Your task to perform on an android device: turn off smart reply in the gmail app Image 0: 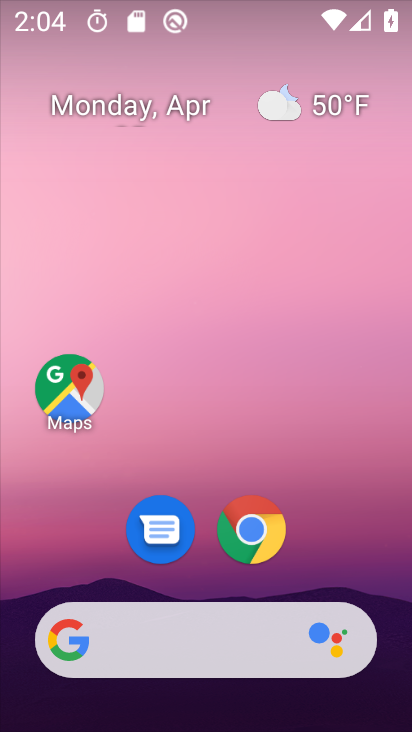
Step 0: drag from (385, 437) to (369, 85)
Your task to perform on an android device: turn off smart reply in the gmail app Image 1: 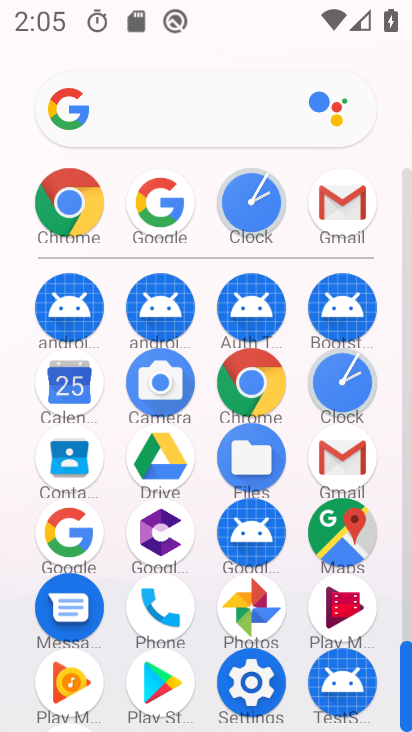
Step 1: click (326, 457)
Your task to perform on an android device: turn off smart reply in the gmail app Image 2: 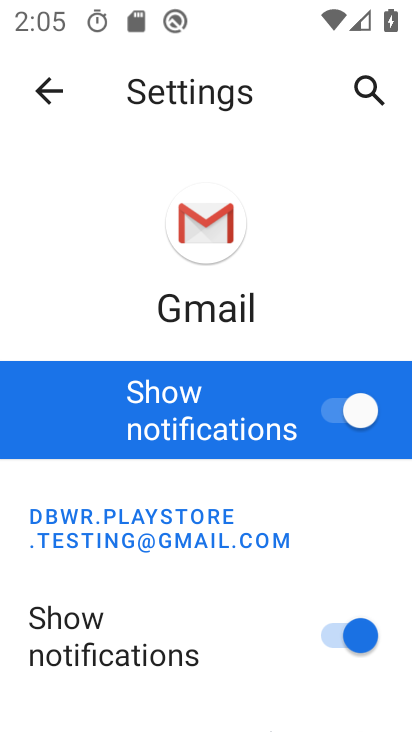
Step 2: drag from (241, 678) to (209, 225)
Your task to perform on an android device: turn off smart reply in the gmail app Image 3: 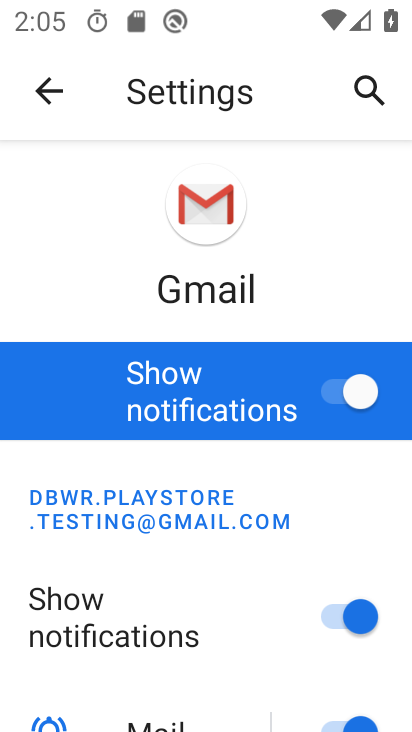
Step 3: drag from (249, 699) to (248, 271)
Your task to perform on an android device: turn off smart reply in the gmail app Image 4: 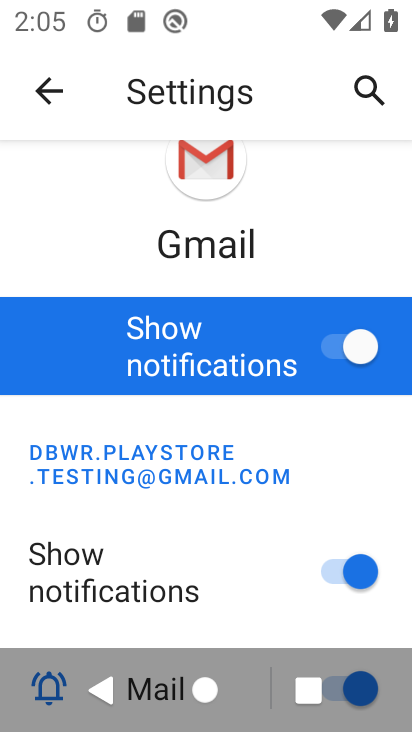
Step 4: drag from (242, 472) to (254, 74)
Your task to perform on an android device: turn off smart reply in the gmail app Image 5: 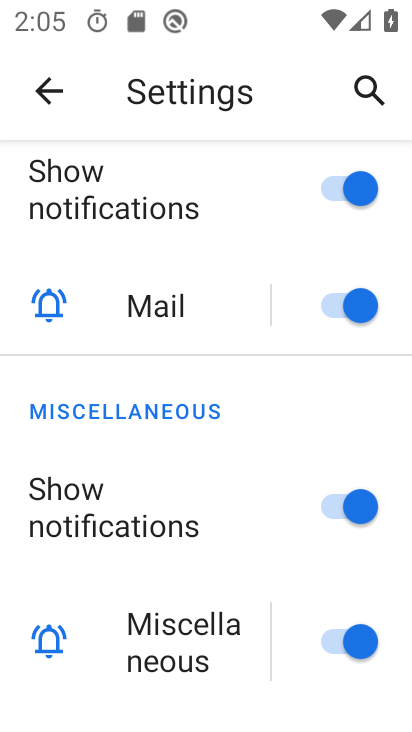
Step 5: drag from (244, 570) to (230, 247)
Your task to perform on an android device: turn off smart reply in the gmail app Image 6: 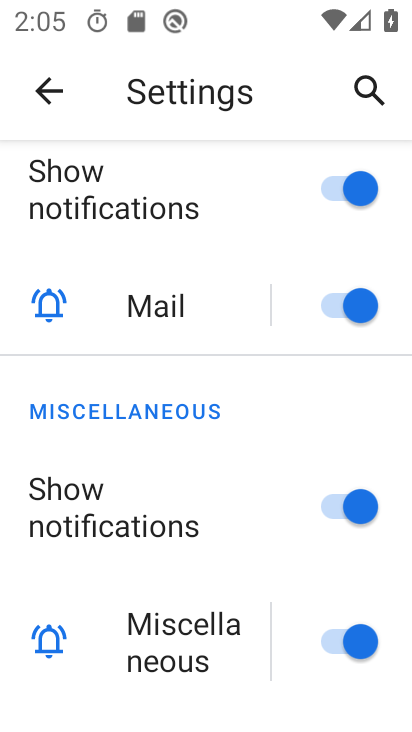
Step 6: drag from (234, 225) to (240, 579)
Your task to perform on an android device: turn off smart reply in the gmail app Image 7: 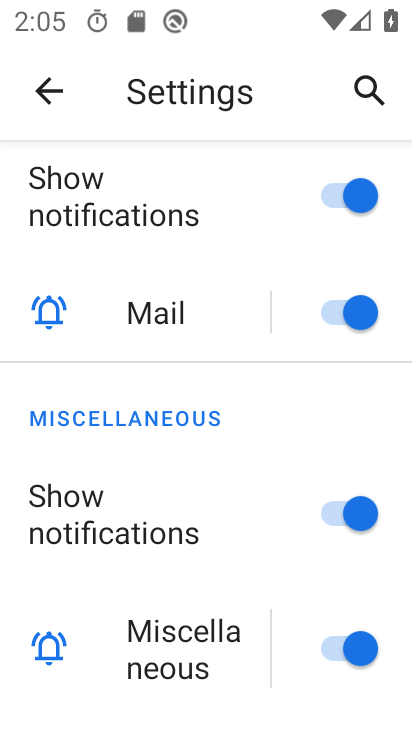
Step 7: drag from (247, 533) to (248, 618)
Your task to perform on an android device: turn off smart reply in the gmail app Image 8: 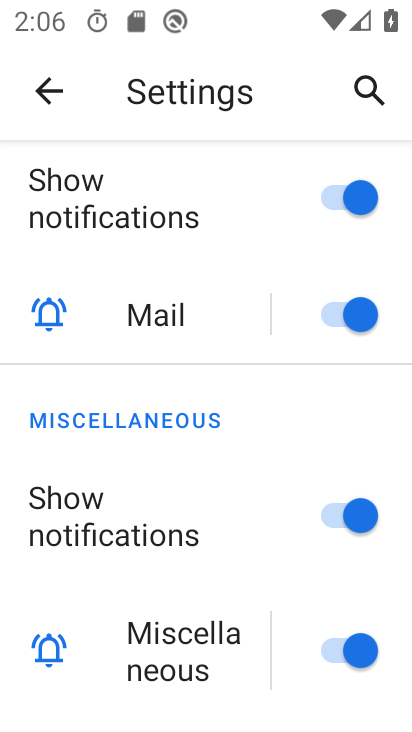
Step 8: click (49, 93)
Your task to perform on an android device: turn off smart reply in the gmail app Image 9: 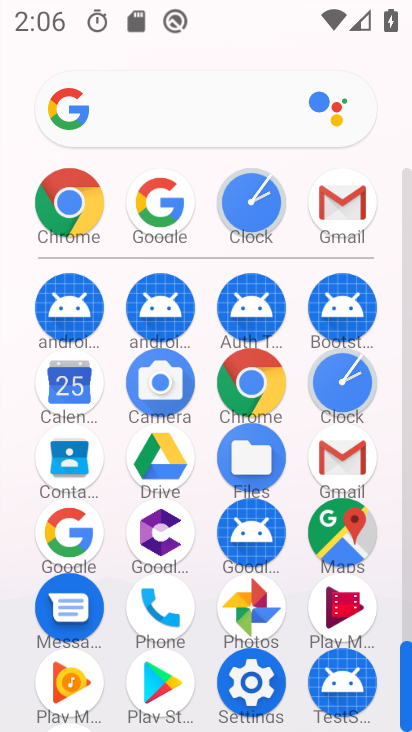
Step 9: click (241, 684)
Your task to perform on an android device: turn off smart reply in the gmail app Image 10: 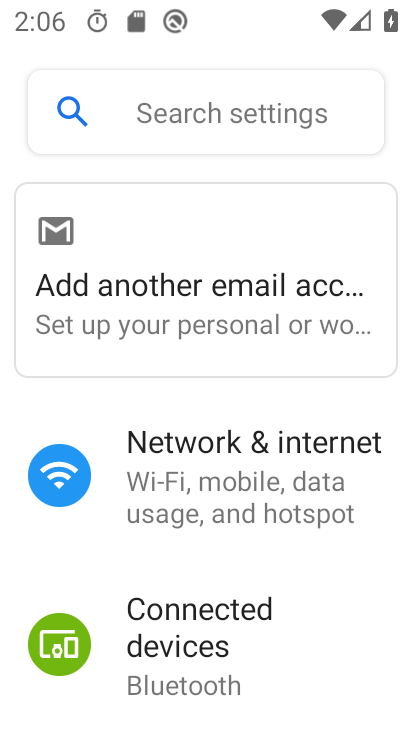
Step 10: press back button
Your task to perform on an android device: turn off smart reply in the gmail app Image 11: 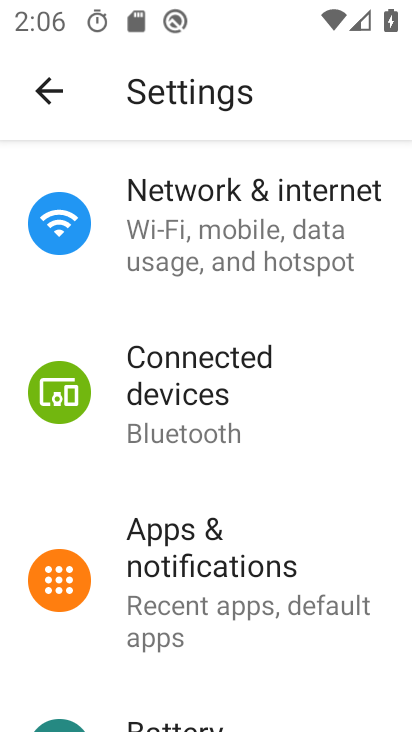
Step 11: press back button
Your task to perform on an android device: turn off smart reply in the gmail app Image 12: 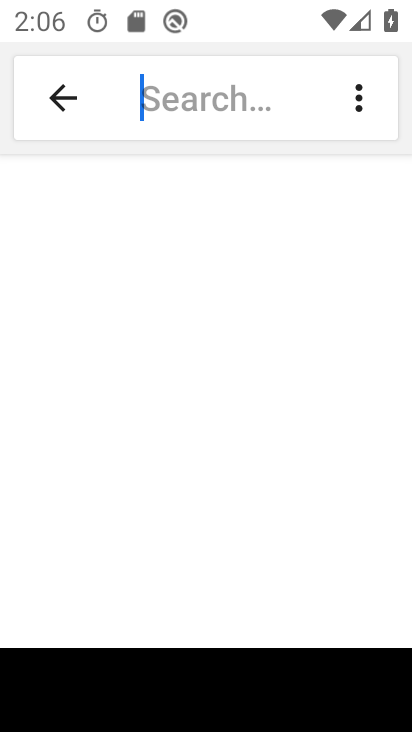
Step 12: click (358, 92)
Your task to perform on an android device: turn off smart reply in the gmail app Image 13: 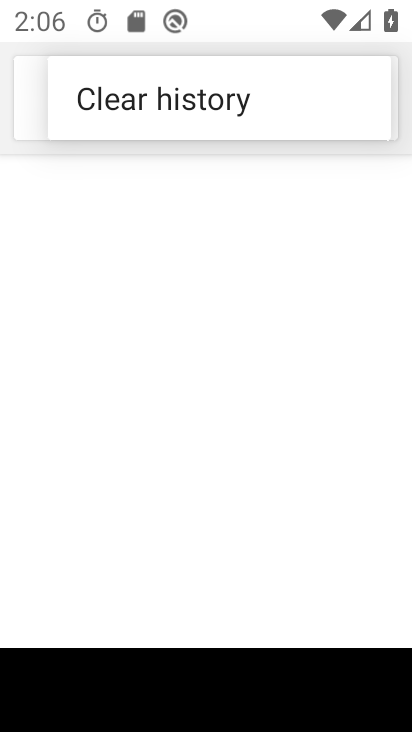
Step 13: press back button
Your task to perform on an android device: turn off smart reply in the gmail app Image 14: 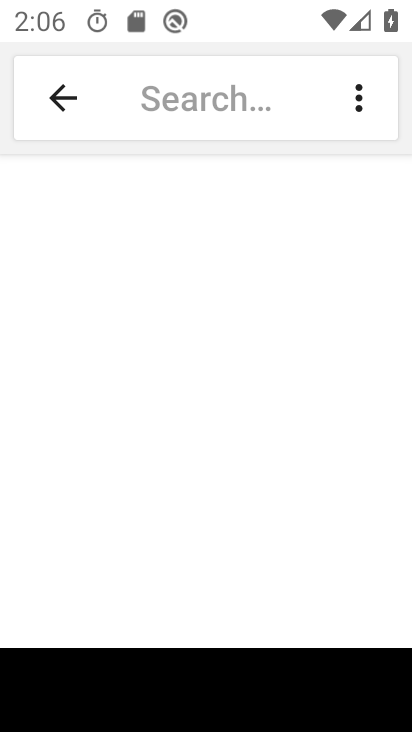
Step 14: press back button
Your task to perform on an android device: turn off smart reply in the gmail app Image 15: 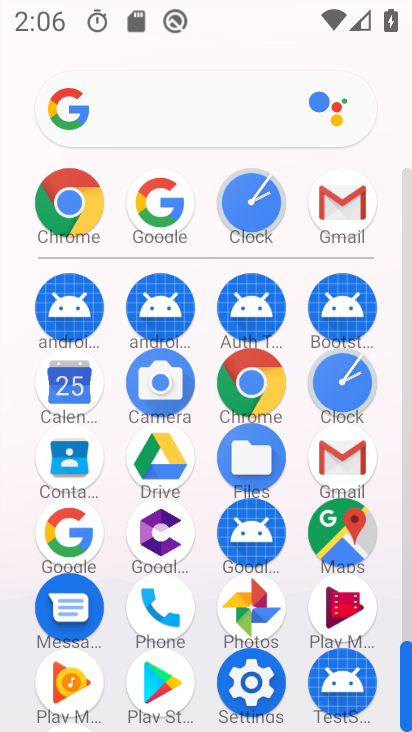
Step 15: click (323, 462)
Your task to perform on an android device: turn off smart reply in the gmail app Image 16: 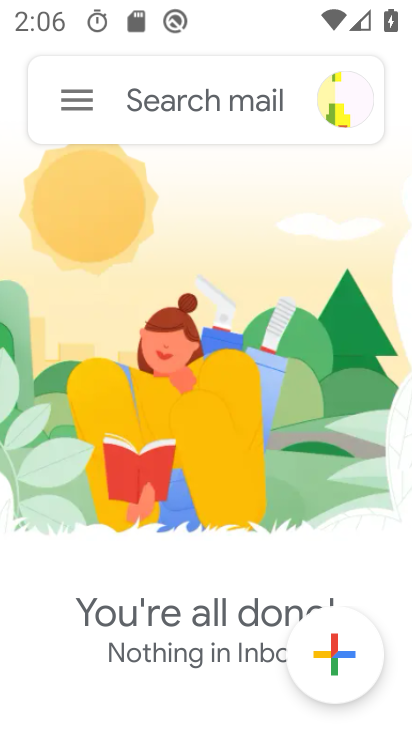
Step 16: click (78, 98)
Your task to perform on an android device: turn off smart reply in the gmail app Image 17: 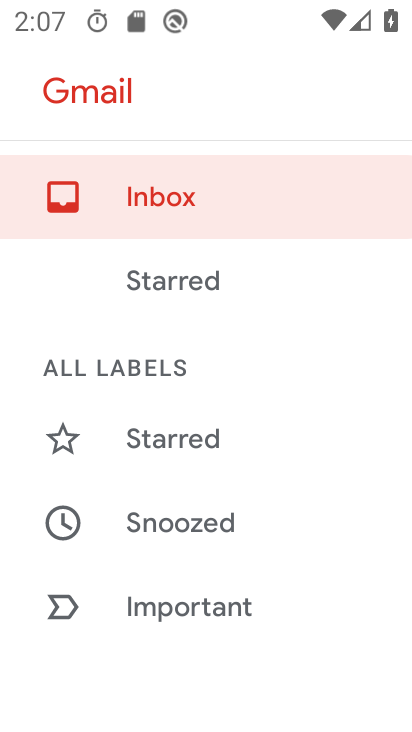
Step 17: drag from (310, 635) to (308, 368)
Your task to perform on an android device: turn off smart reply in the gmail app Image 18: 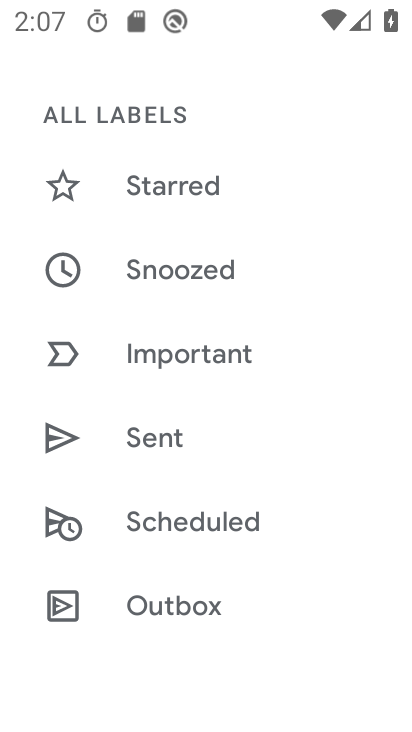
Step 18: click (329, 264)
Your task to perform on an android device: turn off smart reply in the gmail app Image 19: 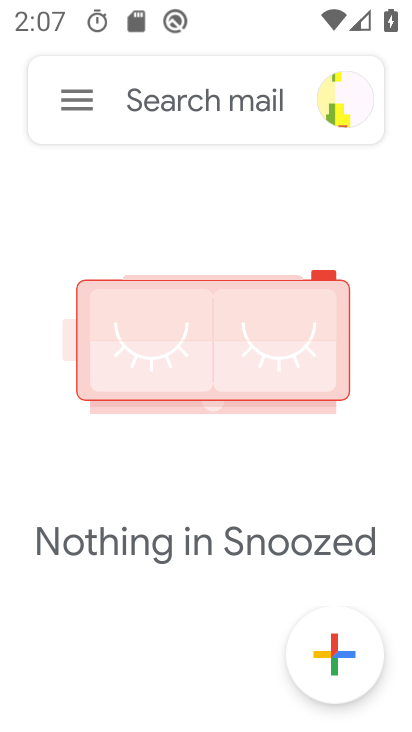
Step 19: press back button
Your task to perform on an android device: turn off smart reply in the gmail app Image 20: 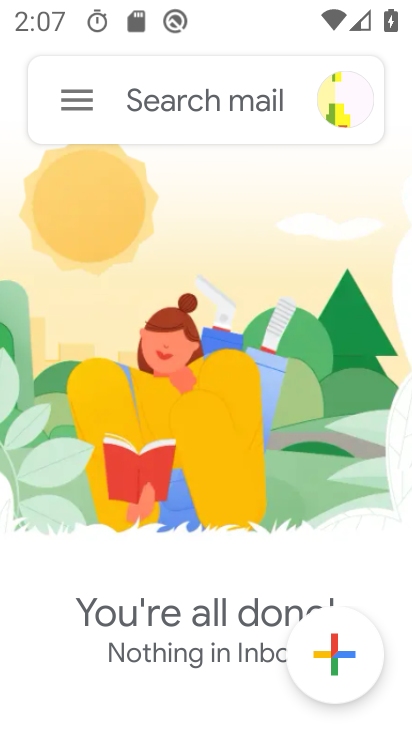
Step 20: click (64, 95)
Your task to perform on an android device: turn off smart reply in the gmail app Image 21: 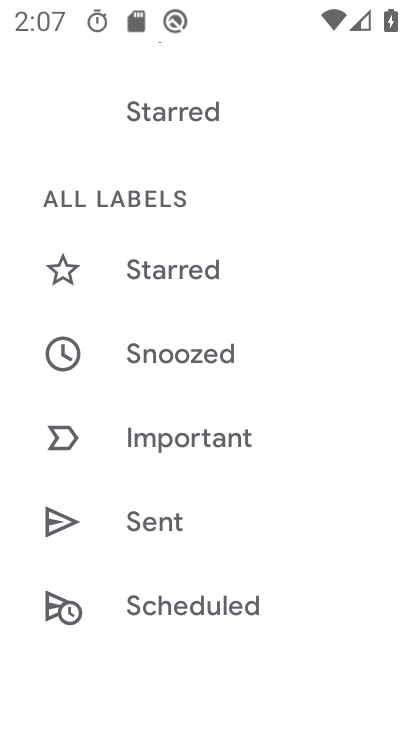
Step 21: drag from (320, 581) to (331, 177)
Your task to perform on an android device: turn off smart reply in the gmail app Image 22: 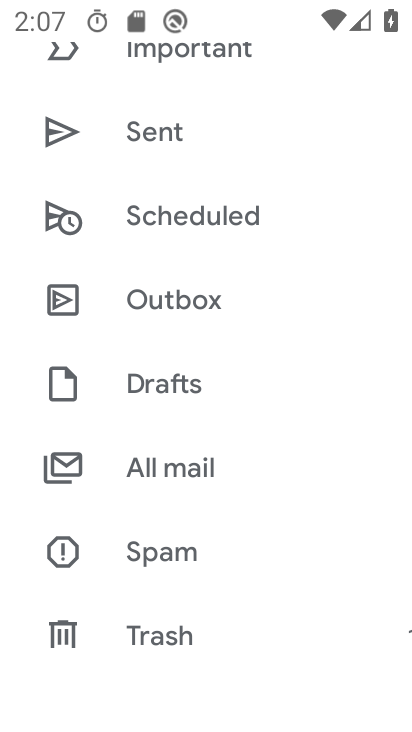
Step 22: drag from (286, 663) to (270, 280)
Your task to perform on an android device: turn off smart reply in the gmail app Image 23: 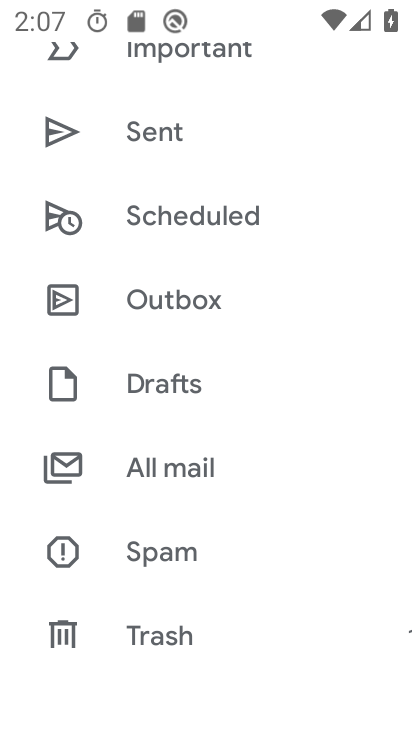
Step 23: drag from (298, 656) to (277, 358)
Your task to perform on an android device: turn off smart reply in the gmail app Image 24: 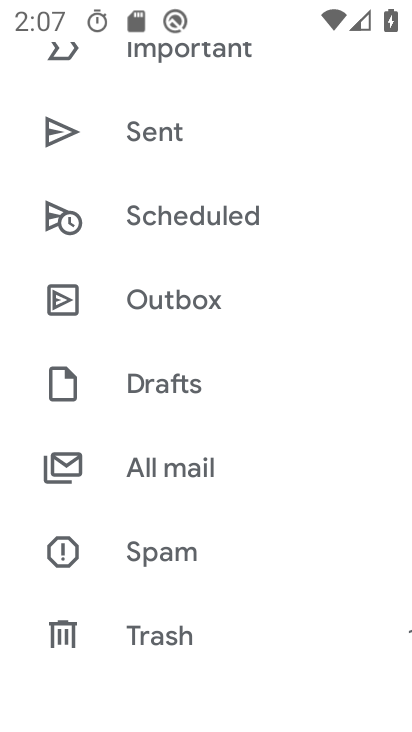
Step 24: drag from (277, 655) to (300, 390)
Your task to perform on an android device: turn off smart reply in the gmail app Image 25: 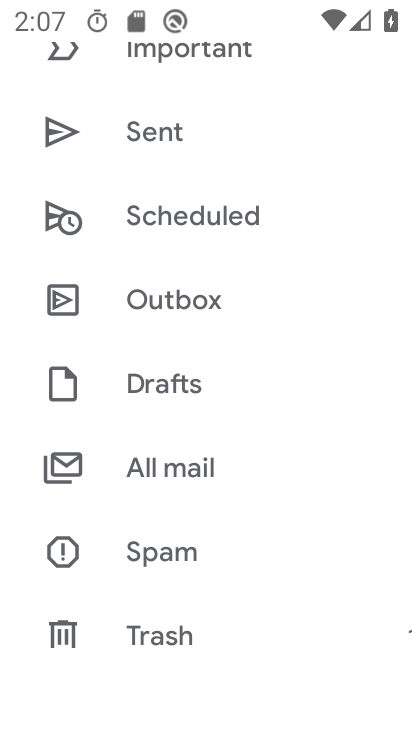
Step 25: drag from (326, 630) to (331, 296)
Your task to perform on an android device: turn off smart reply in the gmail app Image 26: 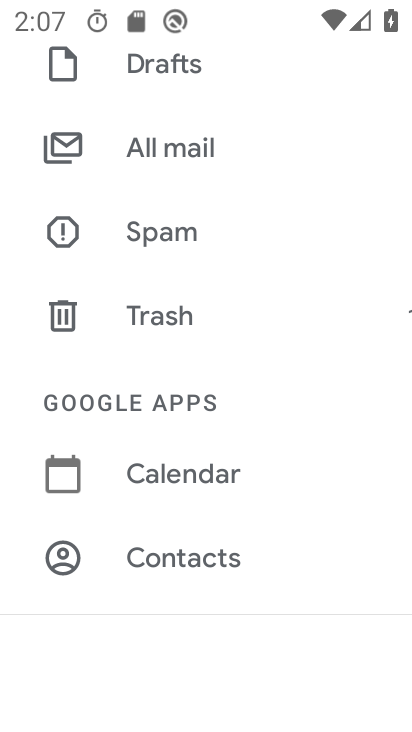
Step 26: drag from (306, 424) to (317, 227)
Your task to perform on an android device: turn off smart reply in the gmail app Image 27: 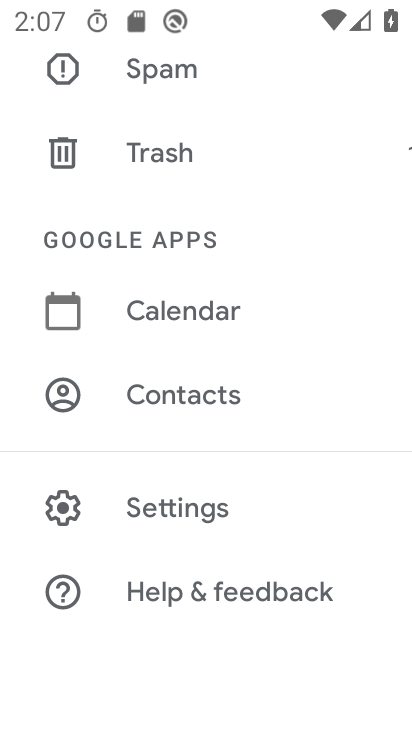
Step 27: click (163, 506)
Your task to perform on an android device: turn off smart reply in the gmail app Image 28: 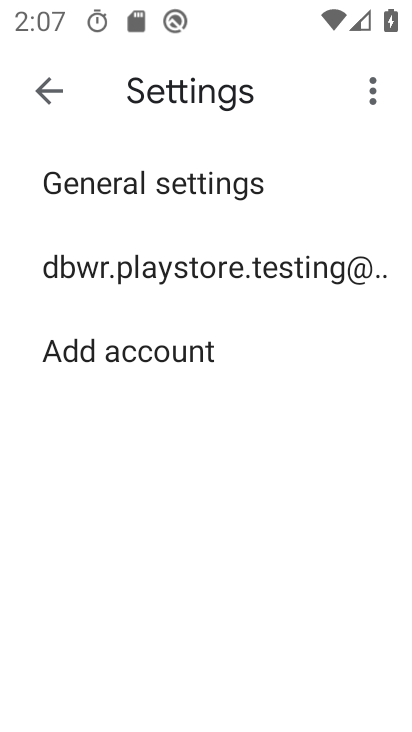
Step 28: click (142, 265)
Your task to perform on an android device: turn off smart reply in the gmail app Image 29: 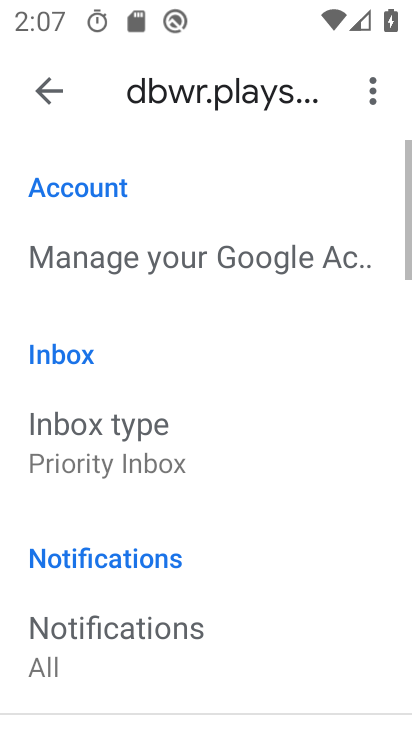
Step 29: drag from (290, 671) to (281, 337)
Your task to perform on an android device: turn off smart reply in the gmail app Image 30: 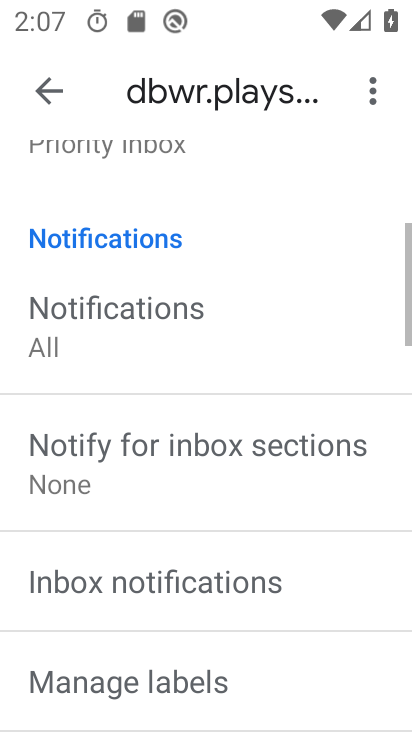
Step 30: drag from (283, 365) to (283, 313)
Your task to perform on an android device: turn off smart reply in the gmail app Image 31: 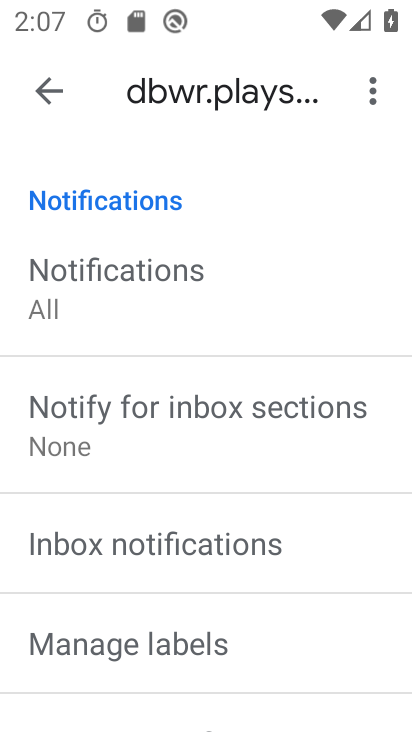
Step 31: drag from (290, 674) to (267, 221)
Your task to perform on an android device: turn off smart reply in the gmail app Image 32: 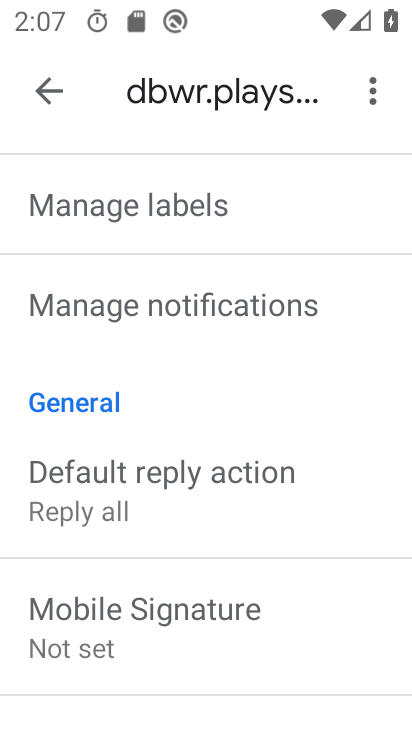
Step 32: drag from (358, 645) to (366, 194)
Your task to perform on an android device: turn off smart reply in the gmail app Image 33: 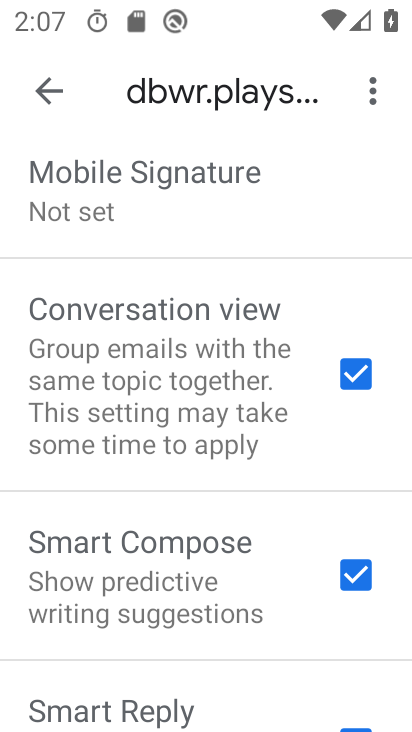
Step 33: drag from (243, 685) to (243, 336)
Your task to perform on an android device: turn off smart reply in the gmail app Image 34: 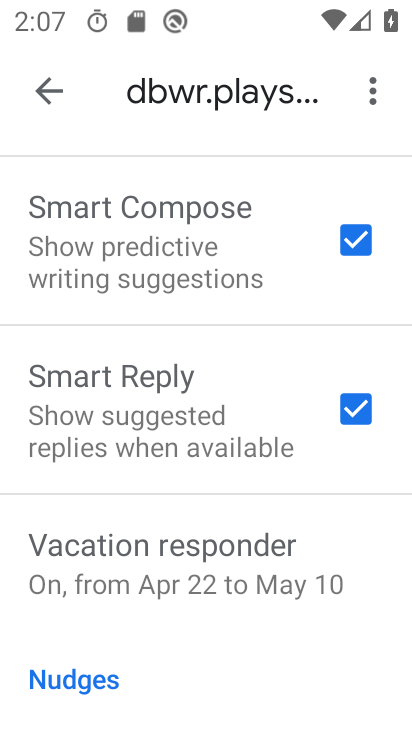
Step 34: click (341, 407)
Your task to perform on an android device: turn off smart reply in the gmail app Image 35: 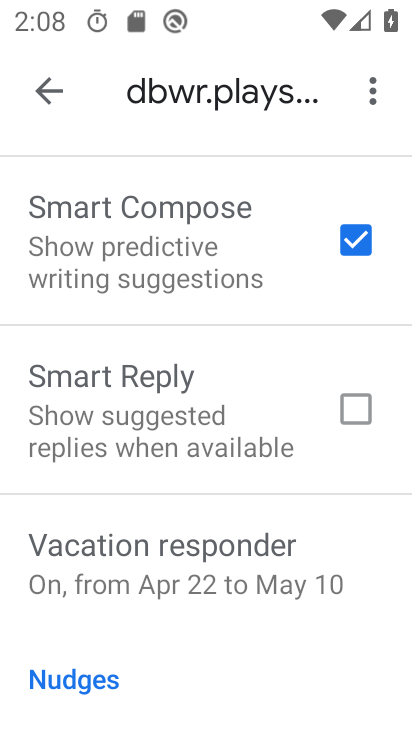
Step 35: task complete